Your task to perform on an android device: Search for the most popular books on Goodreads Image 0: 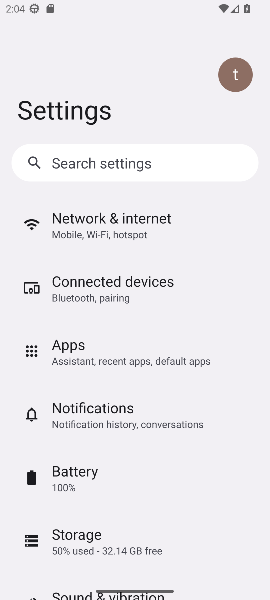
Step 0: press home button
Your task to perform on an android device: Search for the most popular books on Goodreads Image 1: 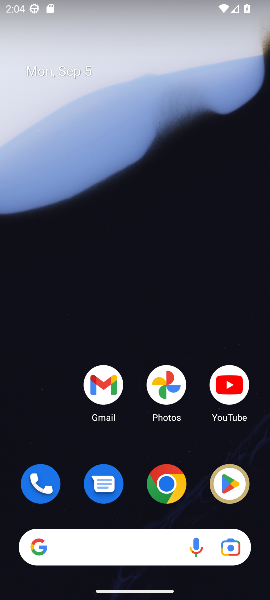
Step 1: click (185, 481)
Your task to perform on an android device: Search for the most popular books on Goodreads Image 2: 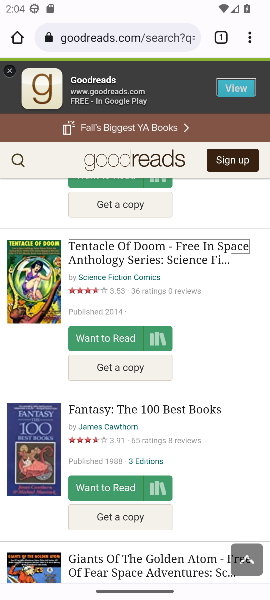
Step 2: click (14, 154)
Your task to perform on an android device: Search for the most popular books on Goodreads Image 3: 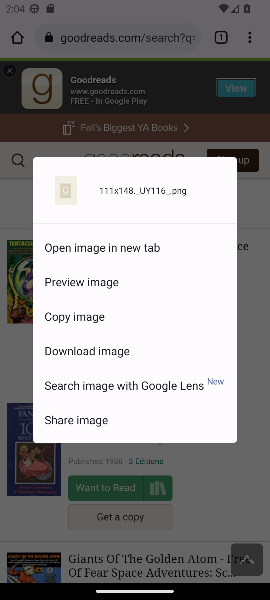
Step 3: click (18, 166)
Your task to perform on an android device: Search for the most popular books on Goodreads Image 4: 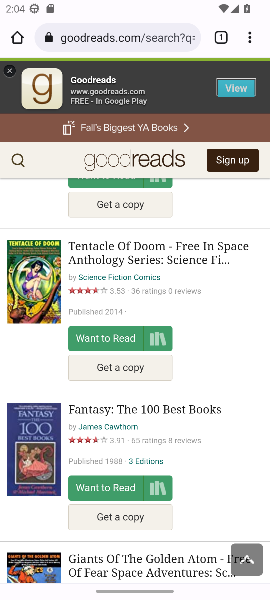
Step 4: click (15, 161)
Your task to perform on an android device: Search for the most popular books on Goodreads Image 5: 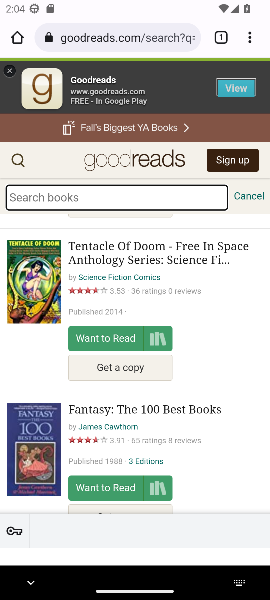
Step 5: type "most popular books"
Your task to perform on an android device: Search for the most popular books on Goodreads Image 6: 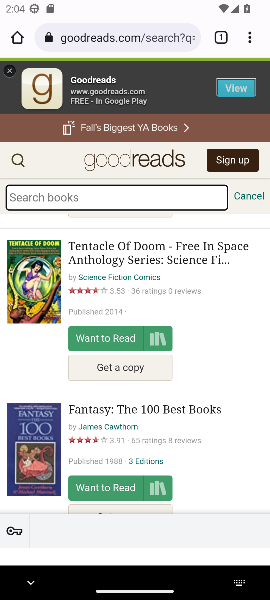
Step 6: press enter
Your task to perform on an android device: Search for the most popular books on Goodreads Image 7: 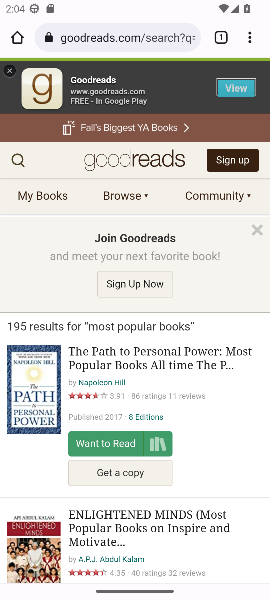
Step 7: task complete